Your task to perform on an android device: Clear the shopping cart on walmart.com. Add "logitech g pro" to the cart on walmart.com Image 0: 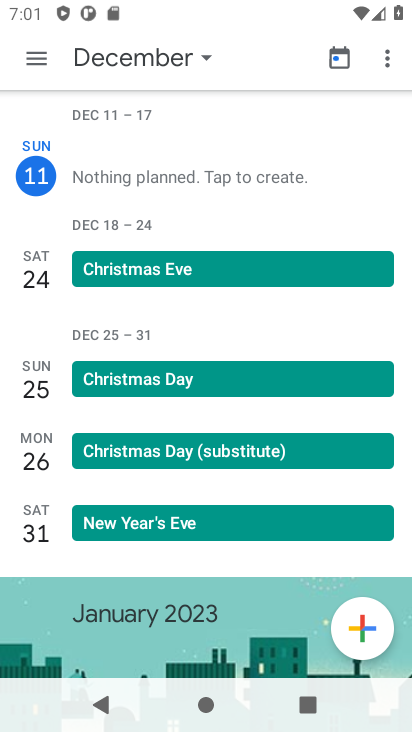
Step 0: press home button
Your task to perform on an android device: Clear the shopping cart on walmart.com. Add "logitech g pro" to the cart on walmart.com Image 1: 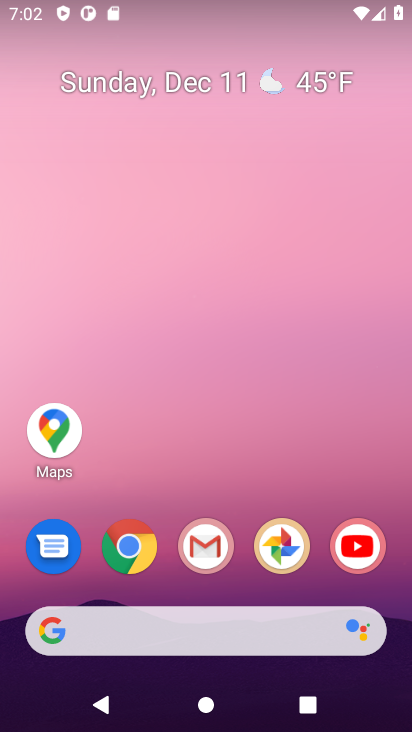
Step 1: click (134, 554)
Your task to perform on an android device: Clear the shopping cart on walmart.com. Add "logitech g pro" to the cart on walmart.com Image 2: 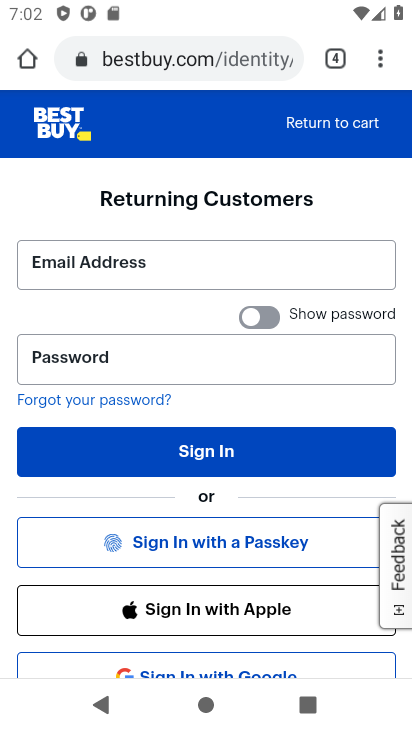
Step 2: click (178, 55)
Your task to perform on an android device: Clear the shopping cart on walmart.com. Add "logitech g pro" to the cart on walmart.com Image 3: 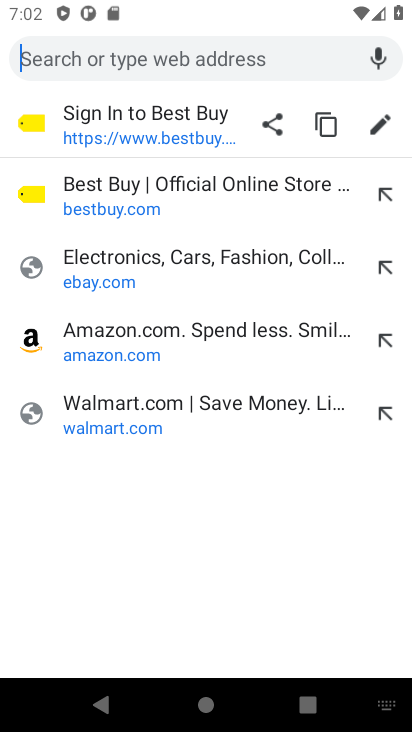
Step 3: click (139, 422)
Your task to perform on an android device: Clear the shopping cart on walmart.com. Add "logitech g pro" to the cart on walmart.com Image 4: 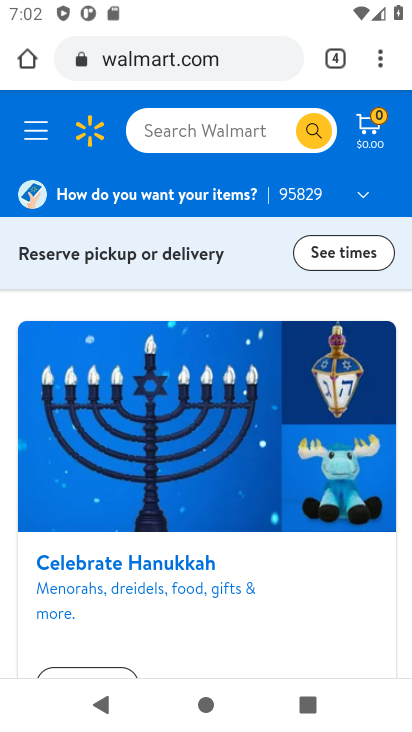
Step 4: click (373, 131)
Your task to perform on an android device: Clear the shopping cart on walmart.com. Add "logitech g pro" to the cart on walmart.com Image 5: 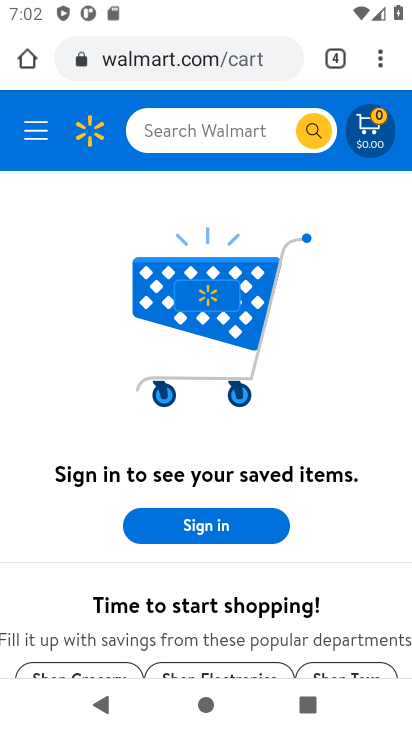
Step 5: click (198, 143)
Your task to perform on an android device: Clear the shopping cart on walmart.com. Add "logitech g pro" to the cart on walmart.com Image 6: 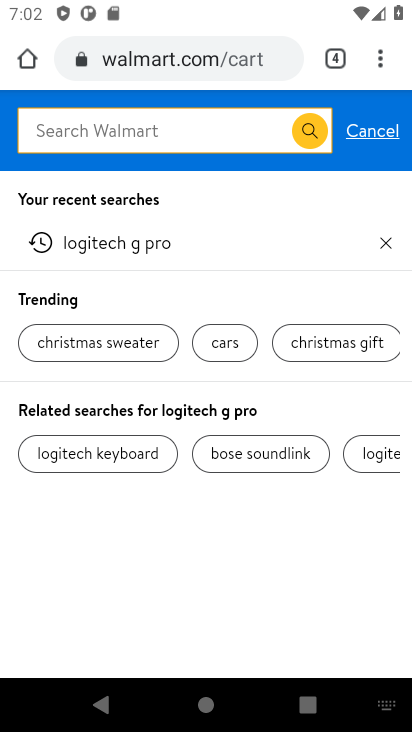
Step 6: type "logitech g pro"
Your task to perform on an android device: Clear the shopping cart on walmart.com. Add "logitech g pro" to the cart on walmart.com Image 7: 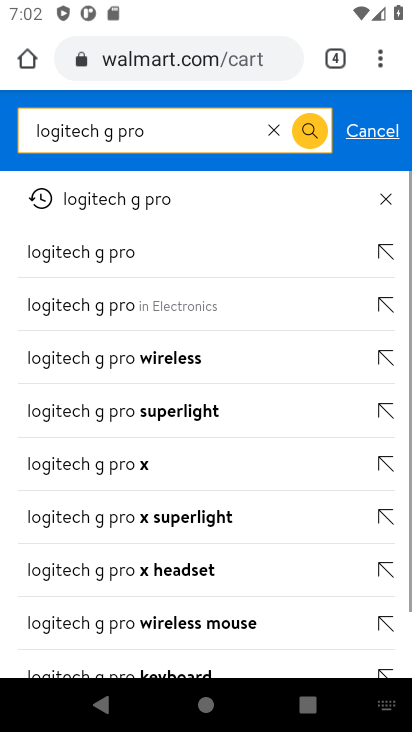
Step 7: click (150, 201)
Your task to perform on an android device: Clear the shopping cart on walmart.com. Add "logitech g pro" to the cart on walmart.com Image 8: 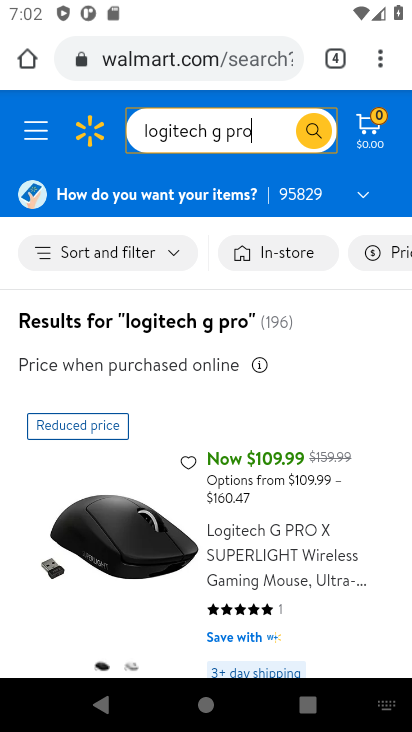
Step 8: drag from (301, 565) to (307, 263)
Your task to perform on an android device: Clear the shopping cart on walmart.com. Add "logitech g pro" to the cart on walmart.com Image 9: 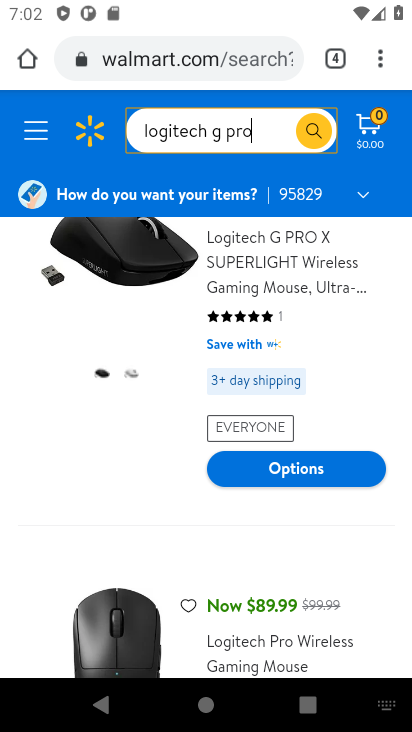
Step 9: click (251, 279)
Your task to perform on an android device: Clear the shopping cart on walmart.com. Add "logitech g pro" to the cart on walmart.com Image 10: 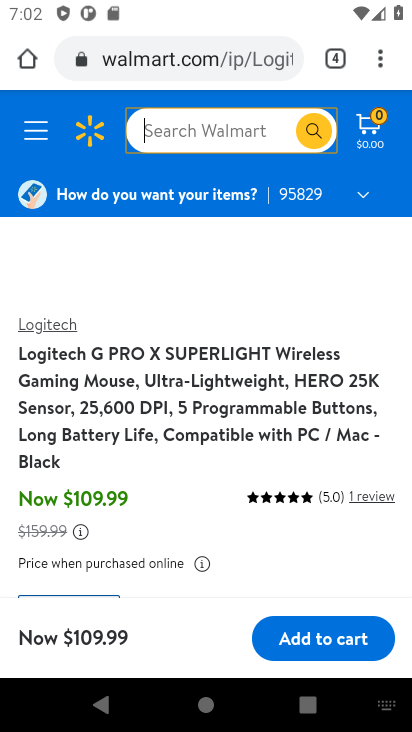
Step 10: click (295, 641)
Your task to perform on an android device: Clear the shopping cart on walmart.com. Add "logitech g pro" to the cart on walmart.com Image 11: 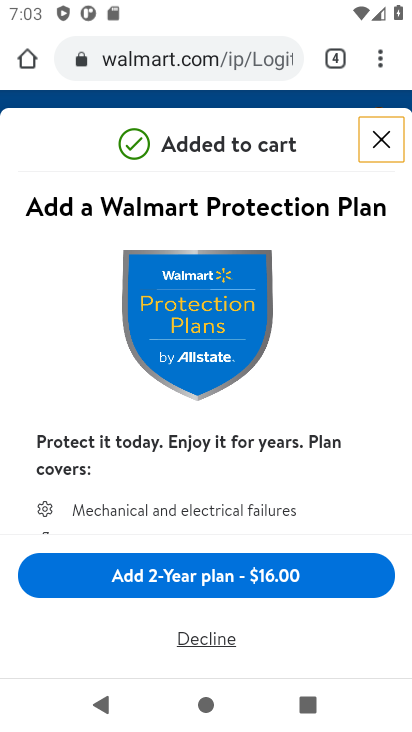
Step 11: task complete